Your task to perform on an android device: turn off airplane mode Image 0: 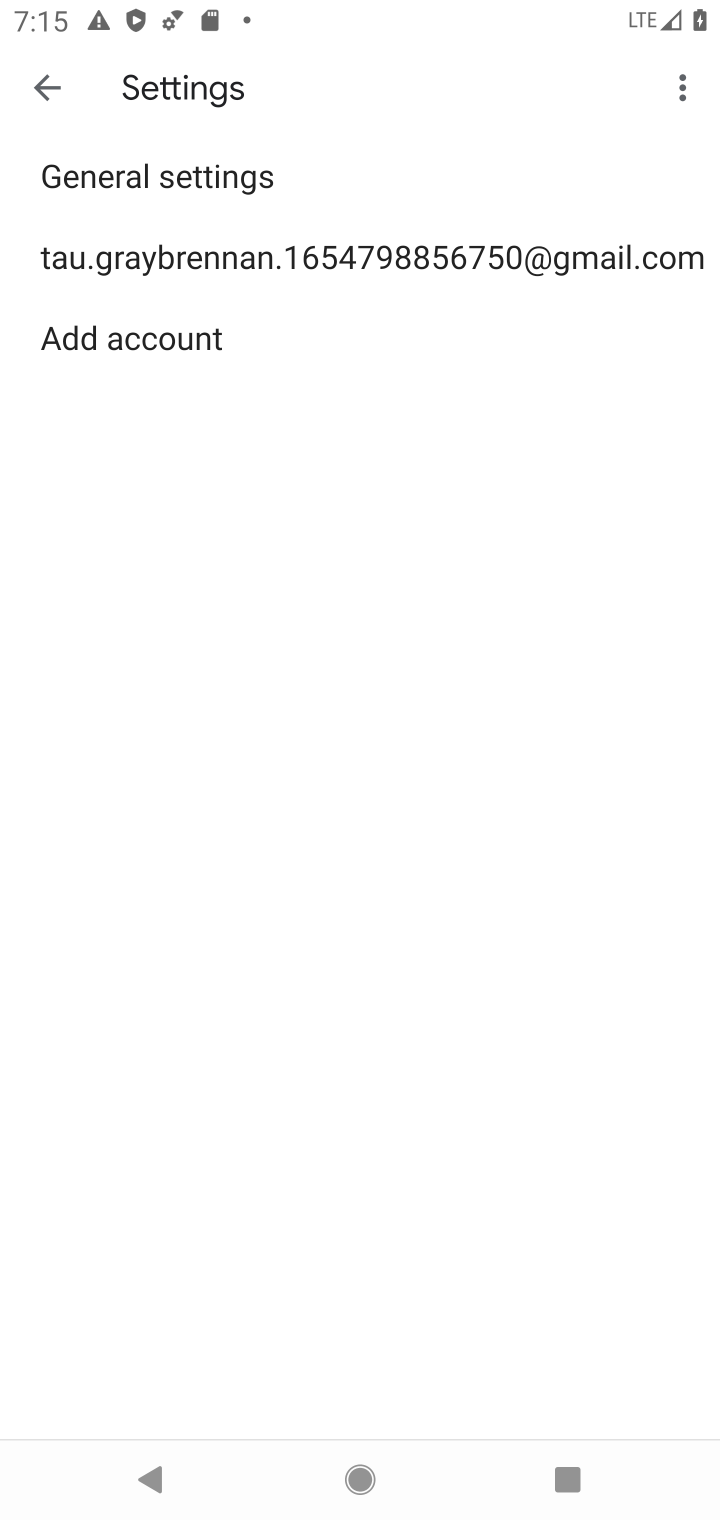
Step 0: press home button
Your task to perform on an android device: turn off airplane mode Image 1: 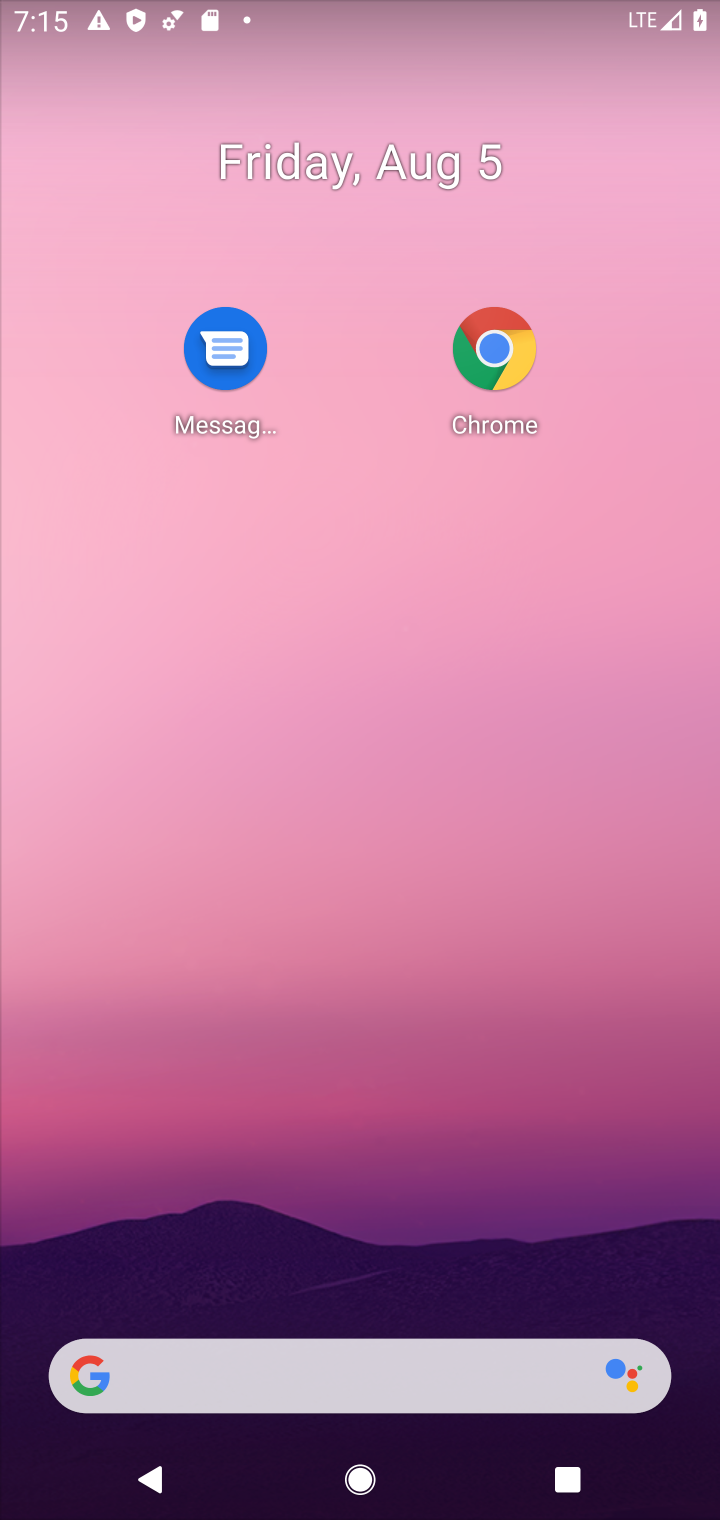
Step 1: drag from (463, 1402) to (266, 410)
Your task to perform on an android device: turn off airplane mode Image 2: 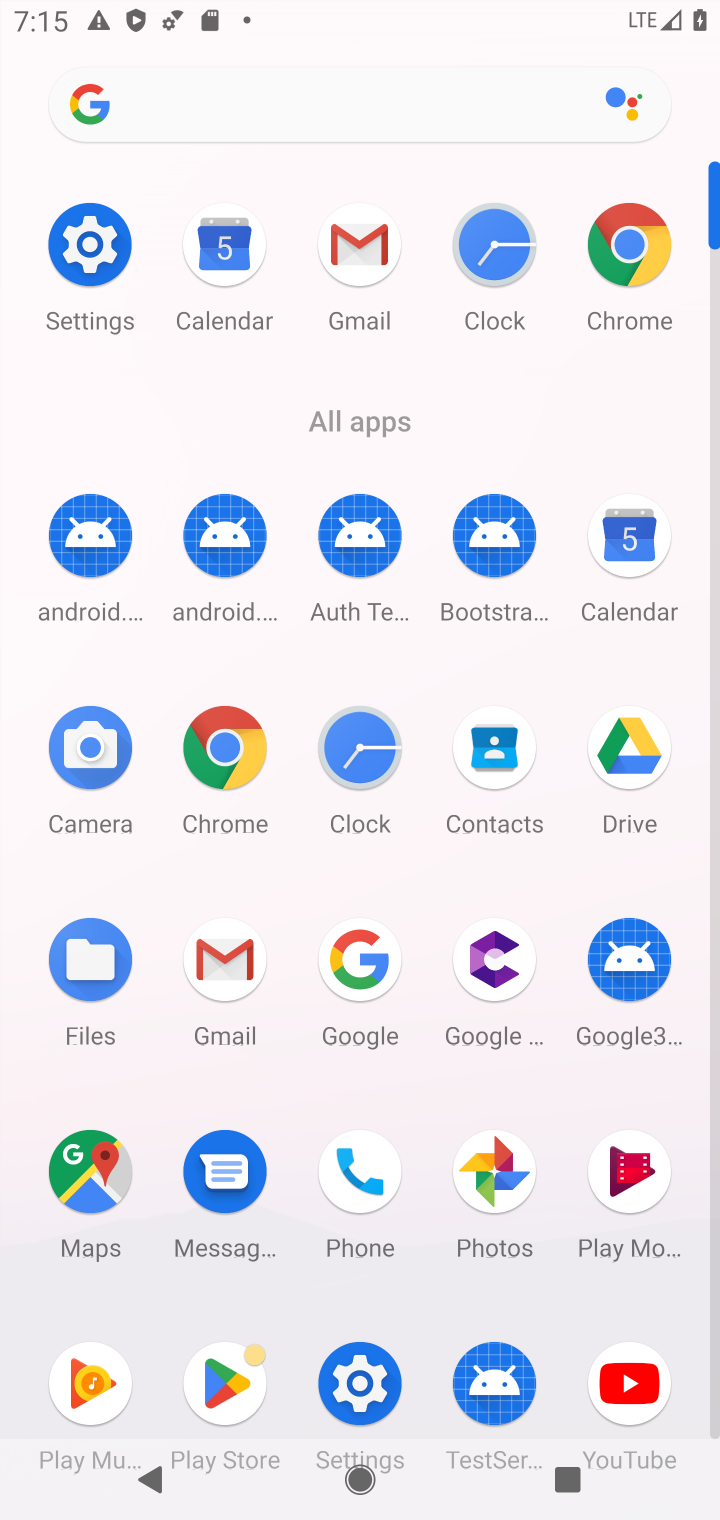
Step 2: click (80, 285)
Your task to perform on an android device: turn off airplane mode Image 3: 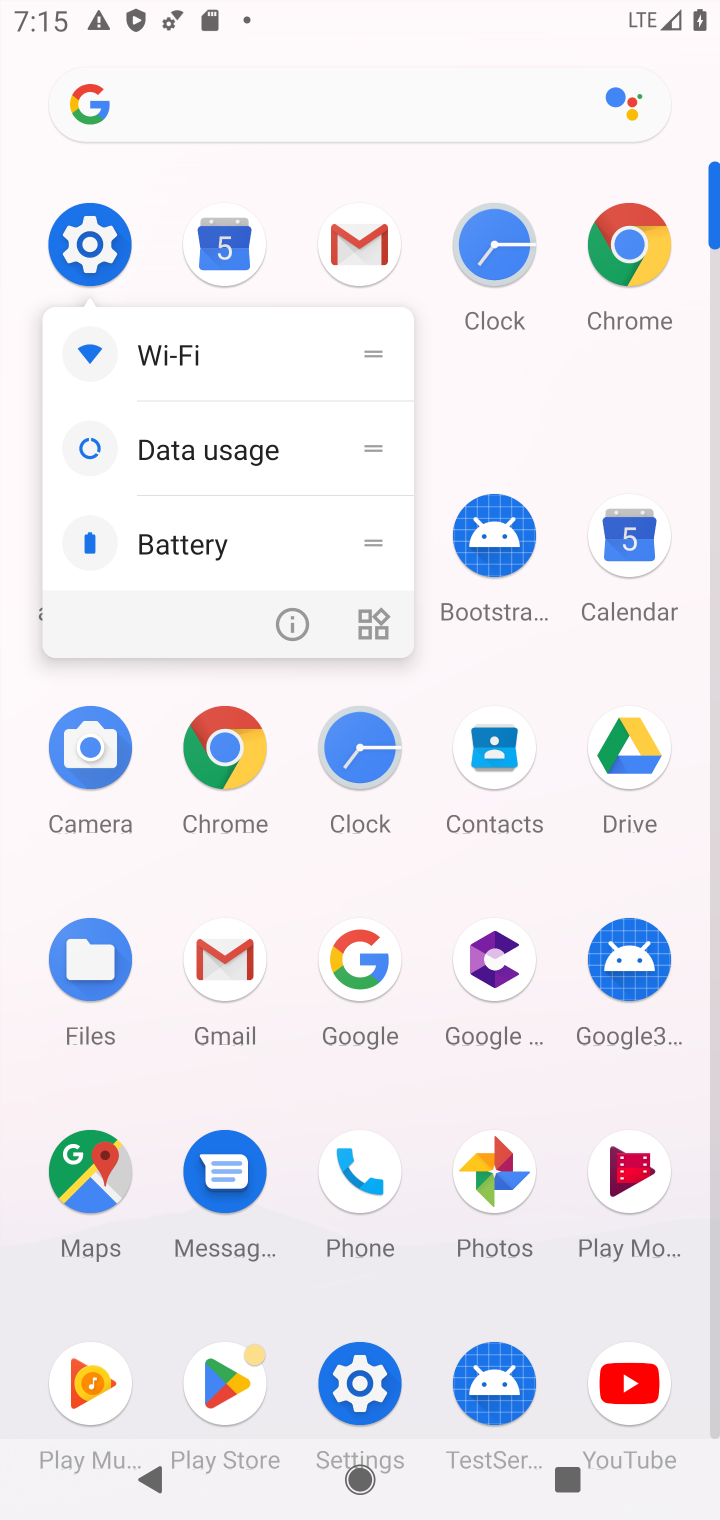
Step 3: click (66, 238)
Your task to perform on an android device: turn off airplane mode Image 4: 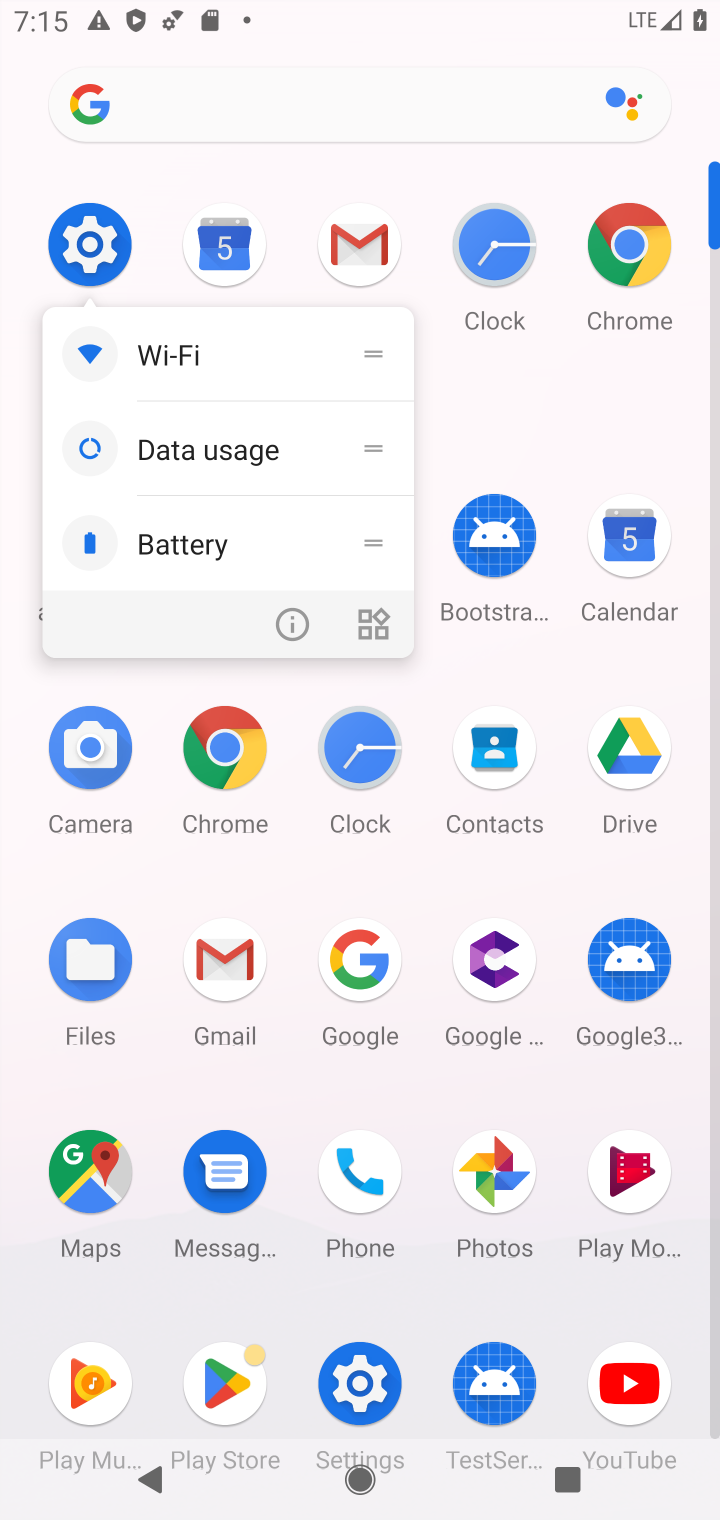
Step 4: click (81, 254)
Your task to perform on an android device: turn off airplane mode Image 5: 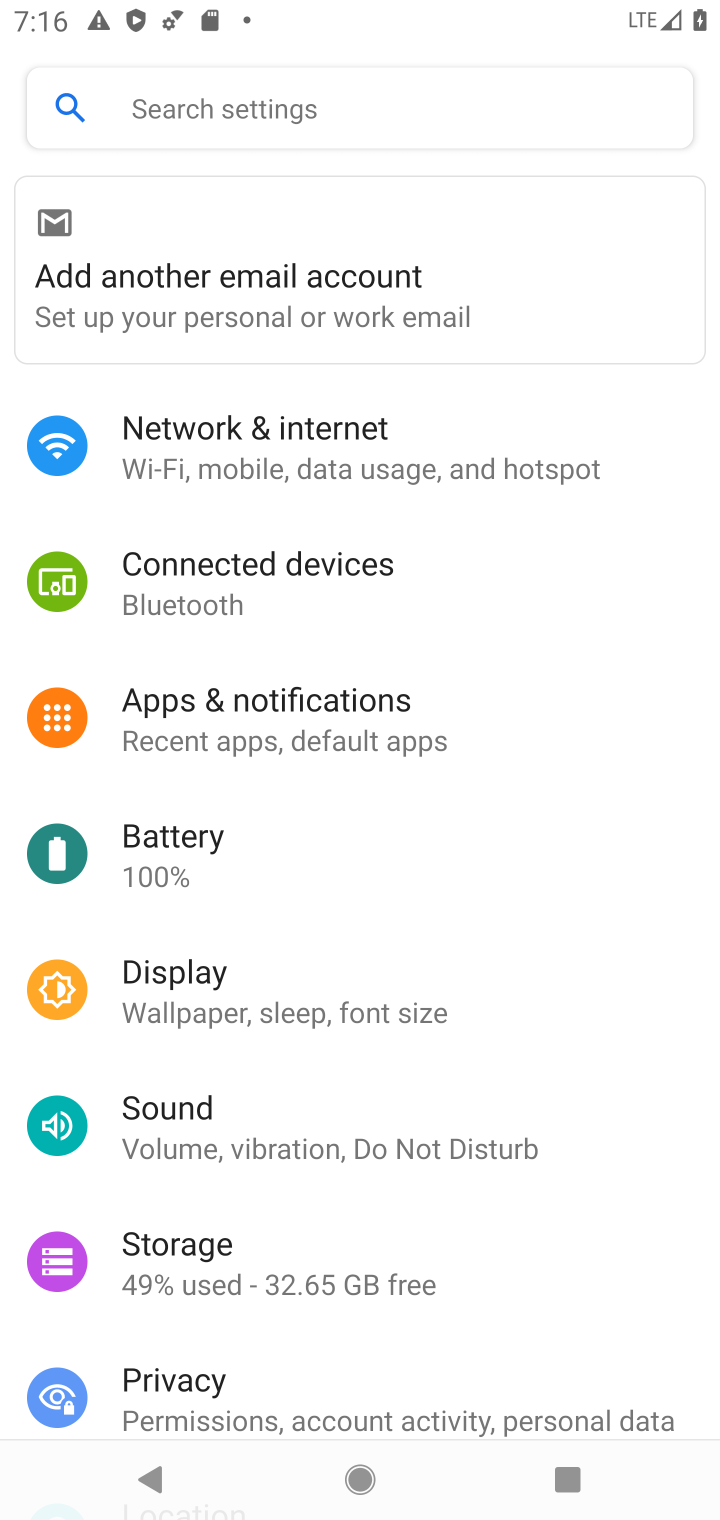
Step 5: click (273, 457)
Your task to perform on an android device: turn off airplane mode Image 6: 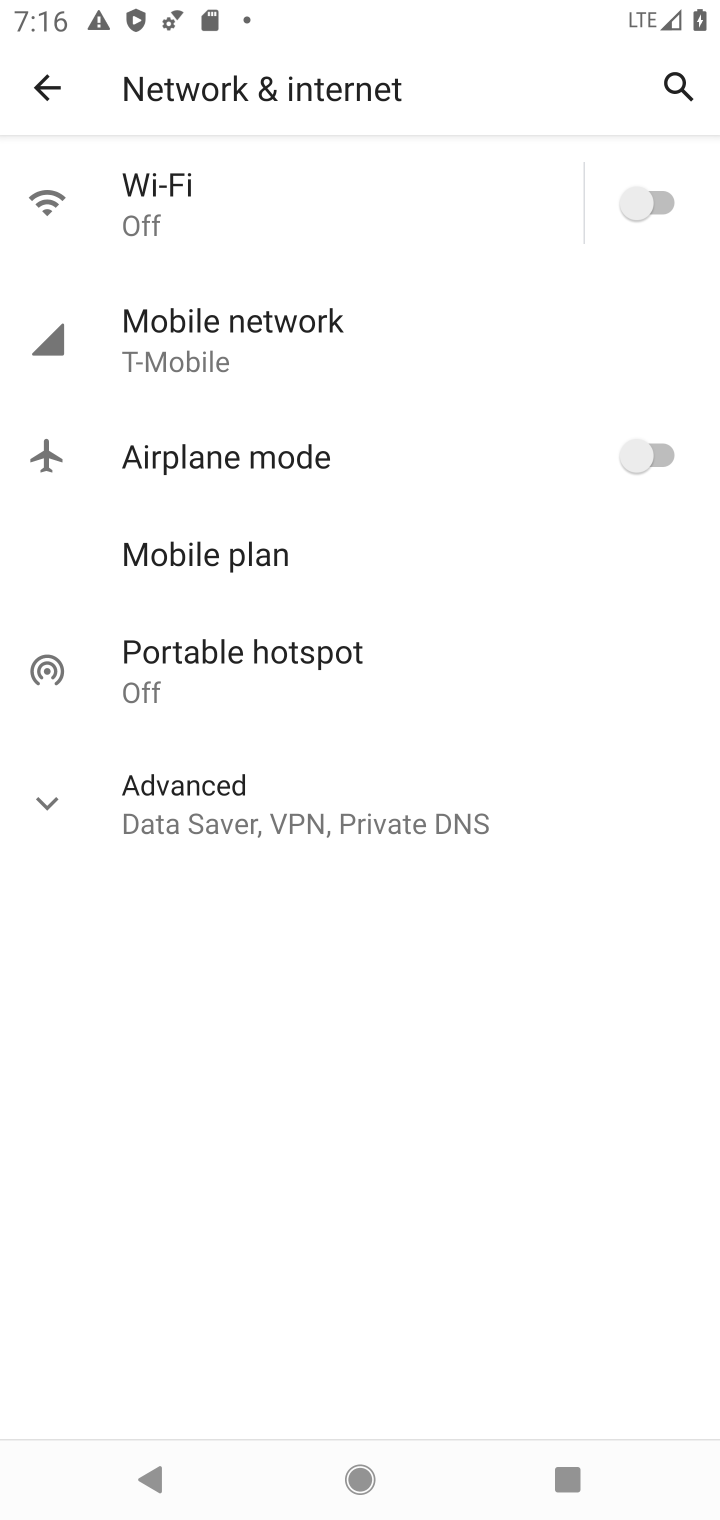
Step 6: click (233, 189)
Your task to perform on an android device: turn off airplane mode Image 7: 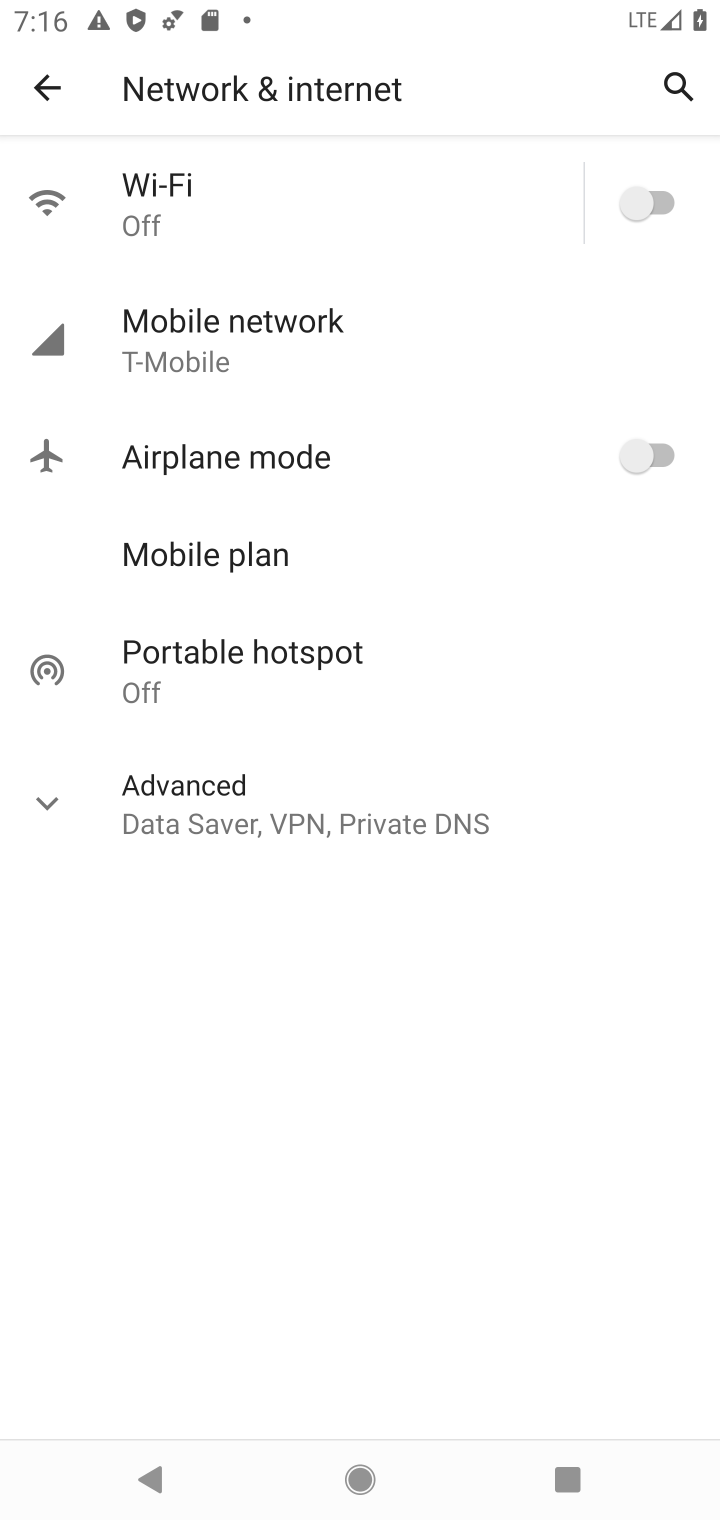
Step 7: click (51, 90)
Your task to perform on an android device: turn off airplane mode Image 8: 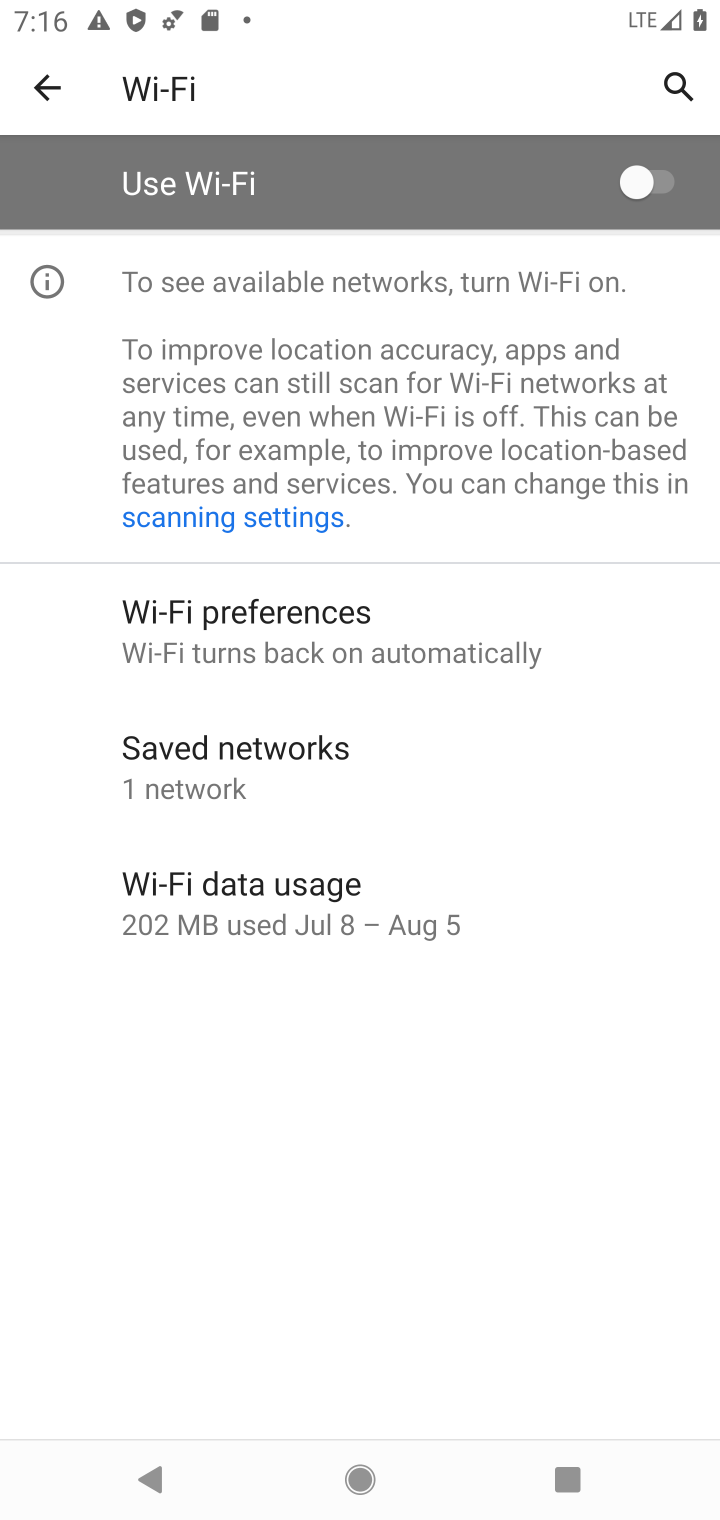
Step 8: click (31, 85)
Your task to perform on an android device: turn off airplane mode Image 9: 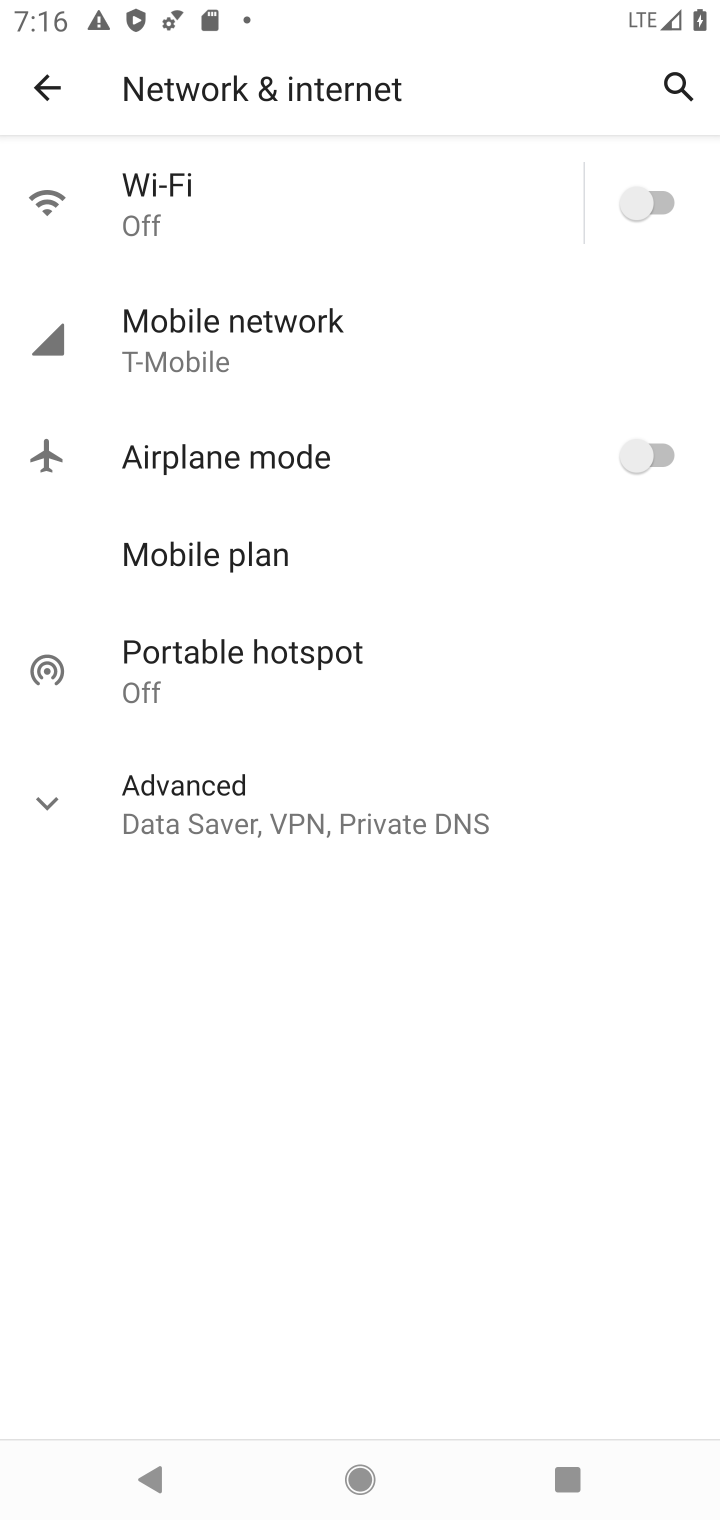
Step 9: click (352, 466)
Your task to perform on an android device: turn off airplane mode Image 10: 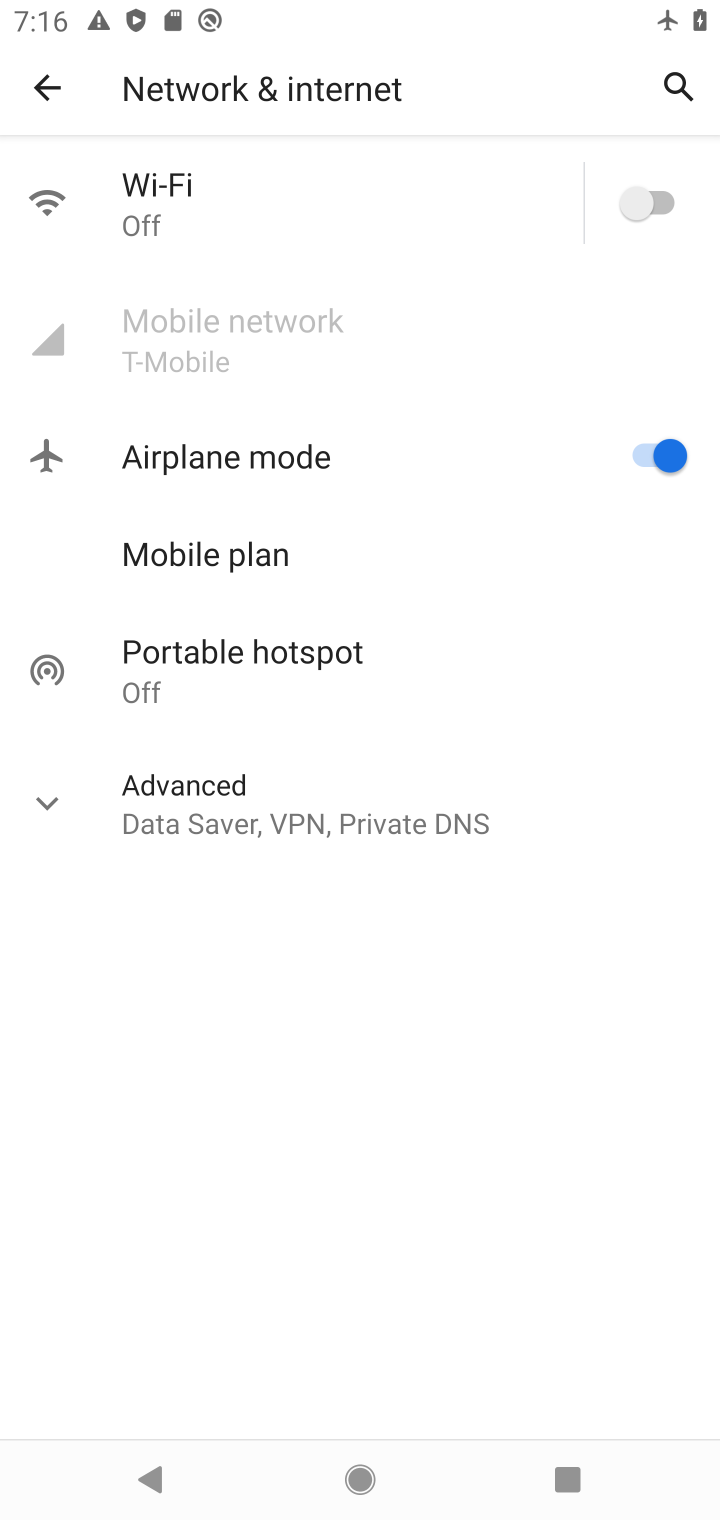
Step 10: click (352, 466)
Your task to perform on an android device: turn off airplane mode Image 11: 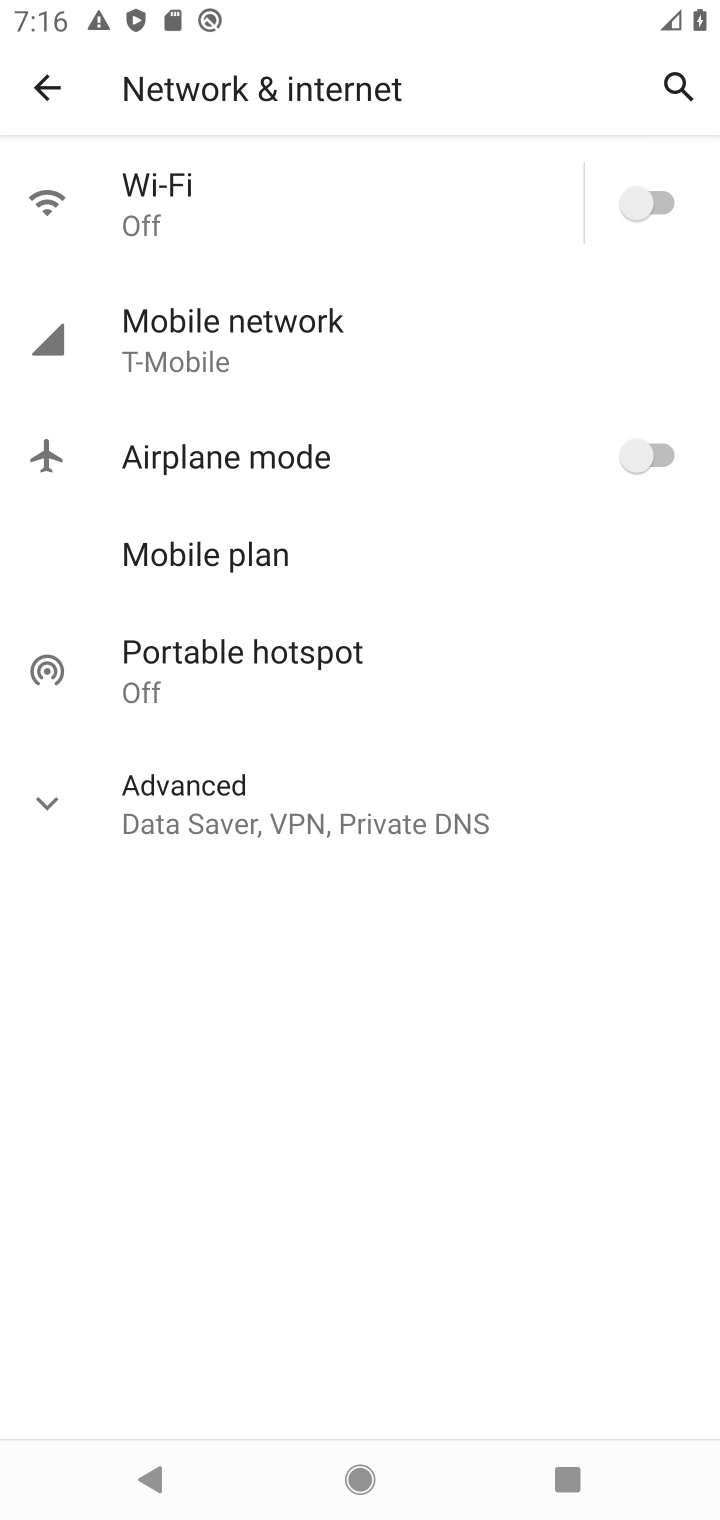
Step 11: task complete